Your task to perform on an android device: Go to Google Image 0: 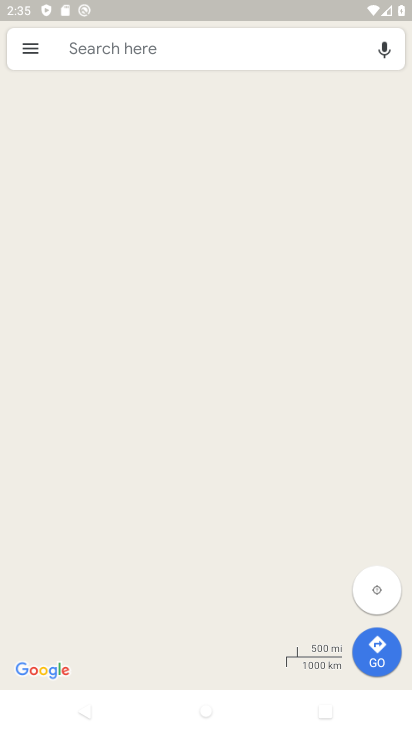
Step 0: press home button
Your task to perform on an android device: Go to Google Image 1: 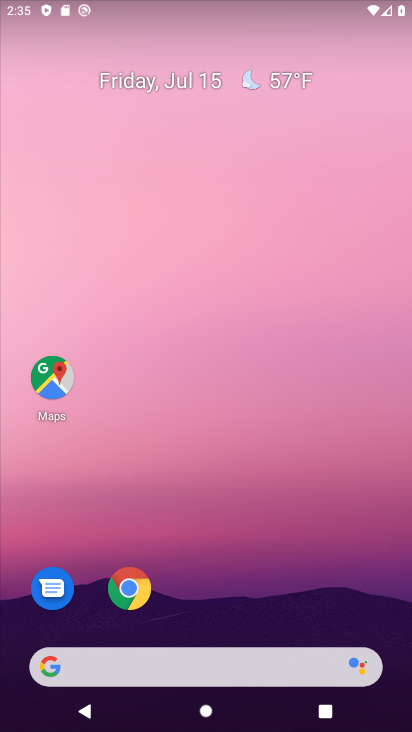
Step 1: click (50, 661)
Your task to perform on an android device: Go to Google Image 2: 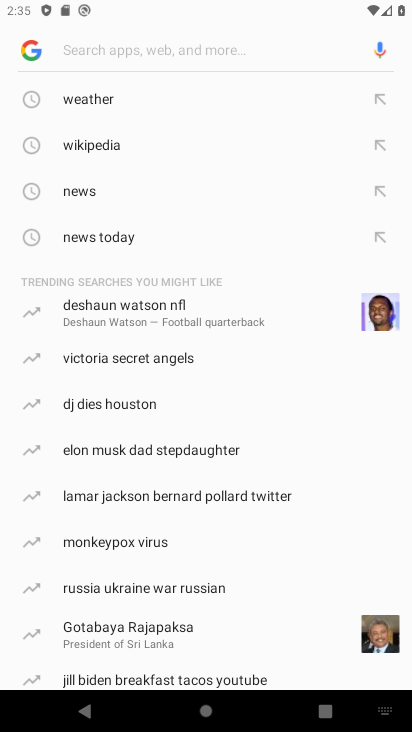
Step 2: click (31, 46)
Your task to perform on an android device: Go to Google Image 3: 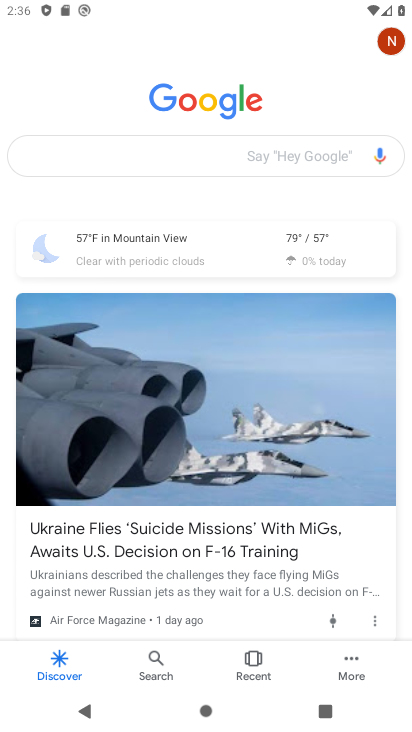
Step 3: task complete